Your task to perform on an android device: allow cookies in the chrome app Image 0: 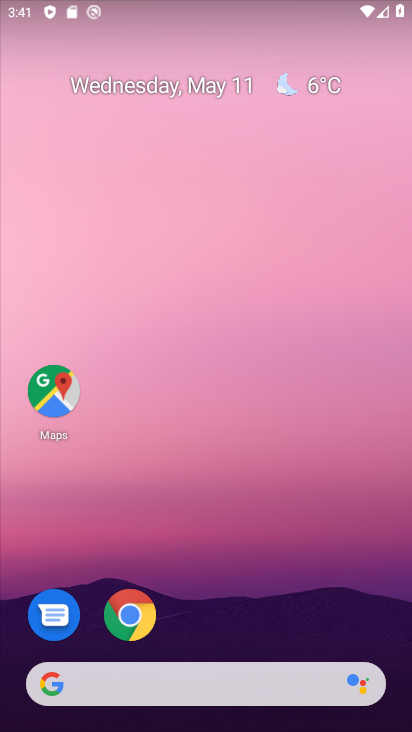
Step 0: click (128, 610)
Your task to perform on an android device: allow cookies in the chrome app Image 1: 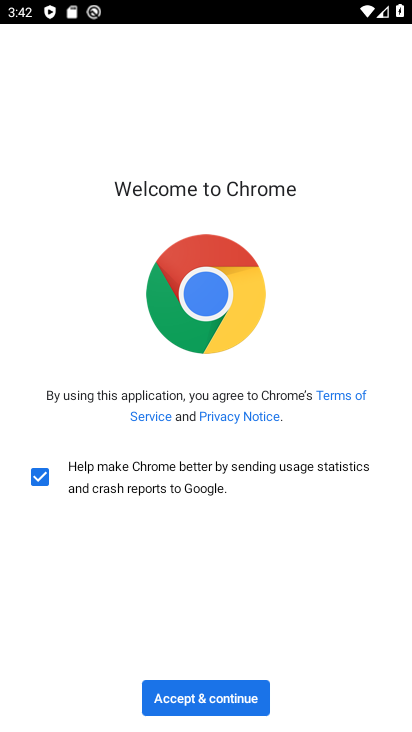
Step 1: click (217, 689)
Your task to perform on an android device: allow cookies in the chrome app Image 2: 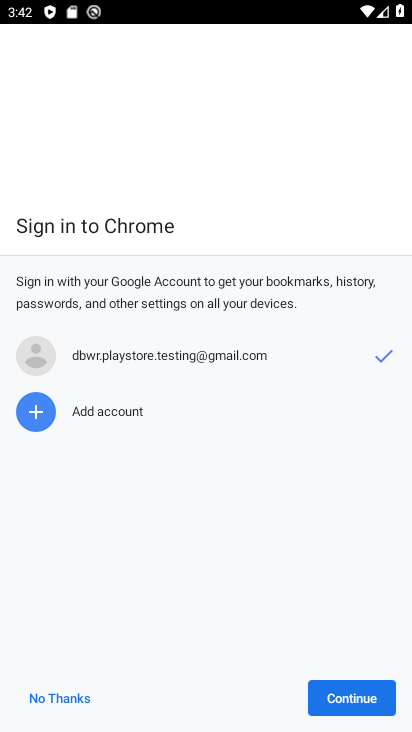
Step 2: click (332, 698)
Your task to perform on an android device: allow cookies in the chrome app Image 3: 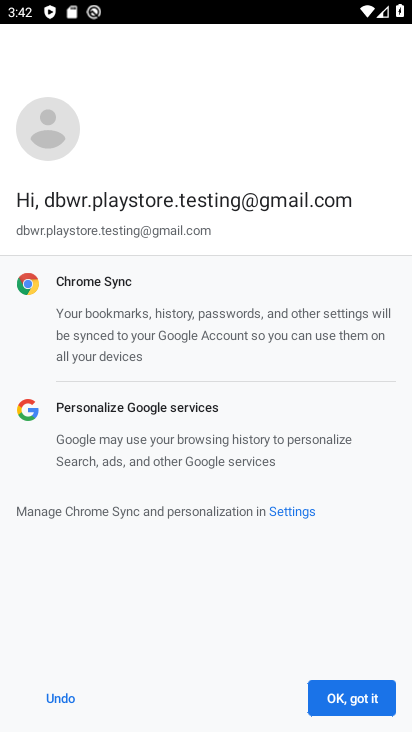
Step 3: click (347, 703)
Your task to perform on an android device: allow cookies in the chrome app Image 4: 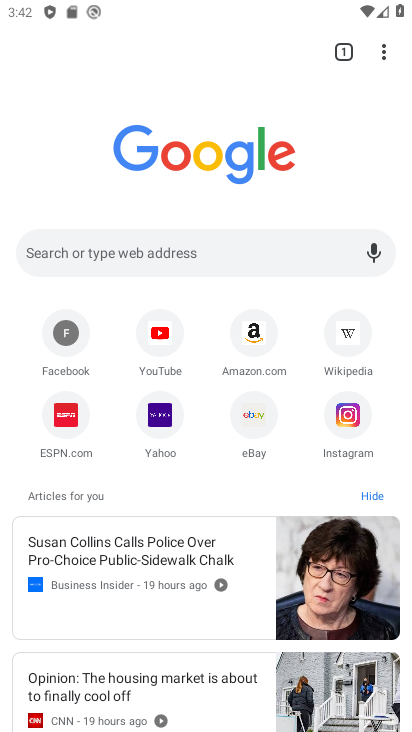
Step 4: click (388, 50)
Your task to perform on an android device: allow cookies in the chrome app Image 5: 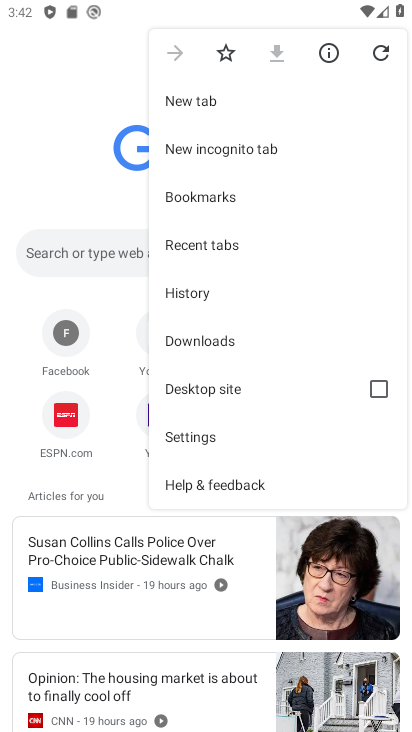
Step 5: click (220, 426)
Your task to perform on an android device: allow cookies in the chrome app Image 6: 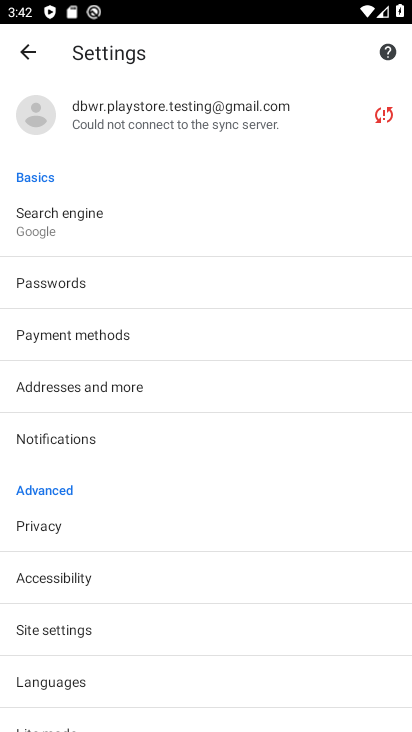
Step 6: click (93, 628)
Your task to perform on an android device: allow cookies in the chrome app Image 7: 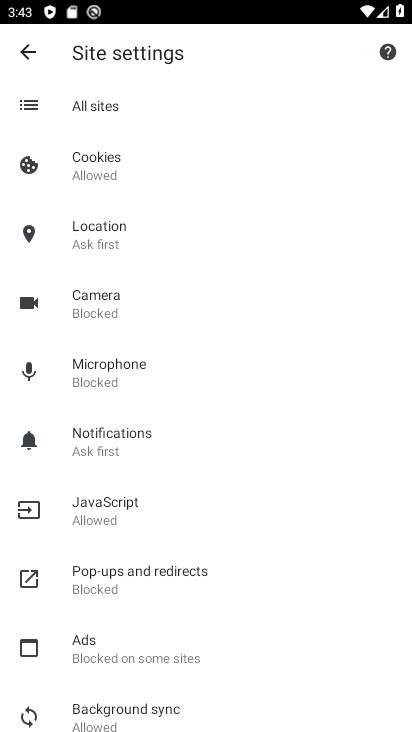
Step 7: click (120, 161)
Your task to perform on an android device: allow cookies in the chrome app Image 8: 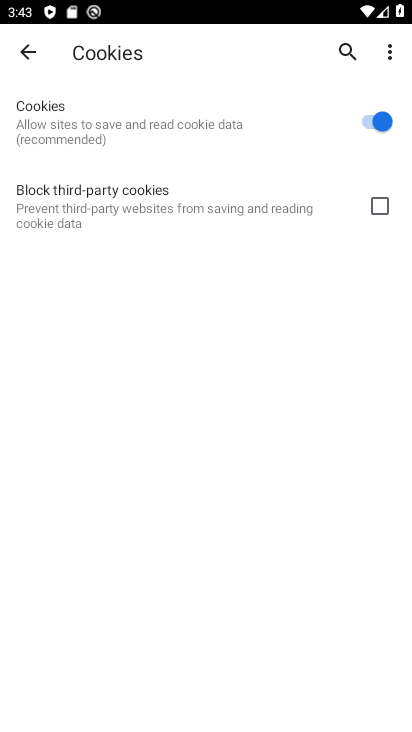
Step 8: task complete